Your task to perform on an android device: turn off notifications settings in the gmail app Image 0: 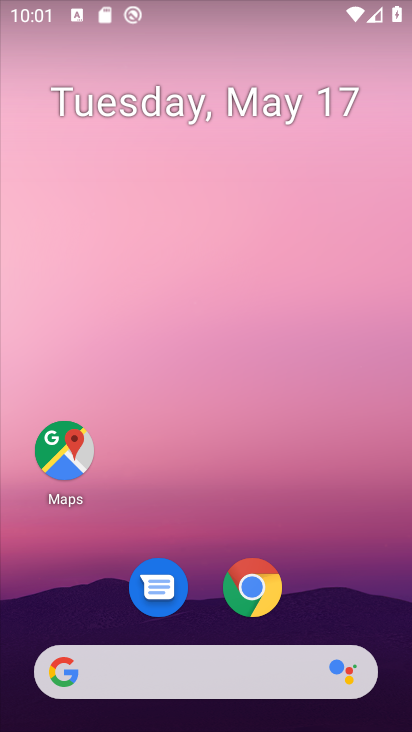
Step 0: drag from (221, 530) to (203, 222)
Your task to perform on an android device: turn off notifications settings in the gmail app Image 1: 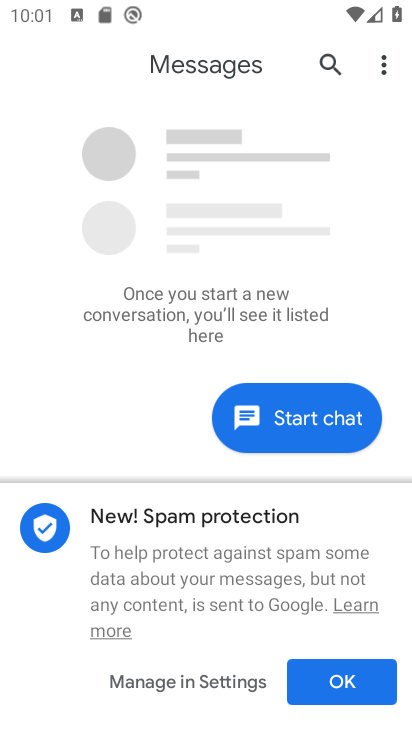
Step 1: press home button
Your task to perform on an android device: turn off notifications settings in the gmail app Image 2: 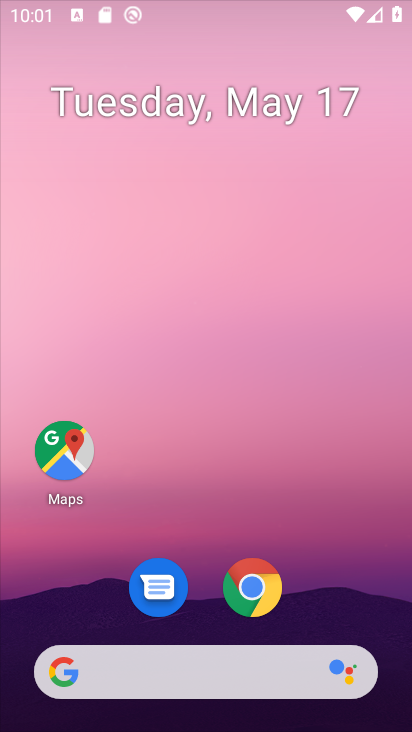
Step 2: drag from (232, 506) to (181, 133)
Your task to perform on an android device: turn off notifications settings in the gmail app Image 3: 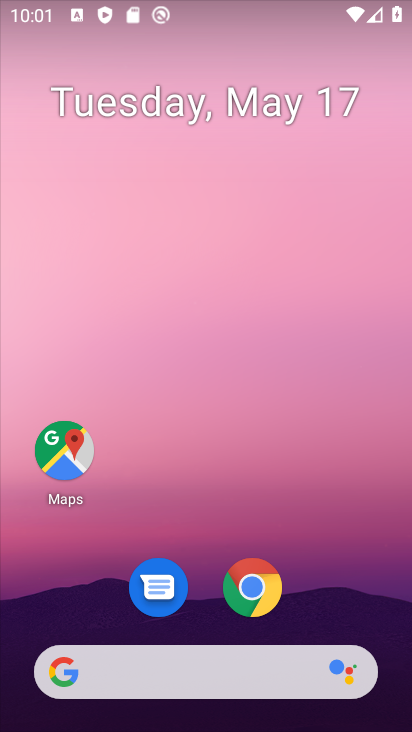
Step 3: drag from (189, 318) to (217, 87)
Your task to perform on an android device: turn off notifications settings in the gmail app Image 4: 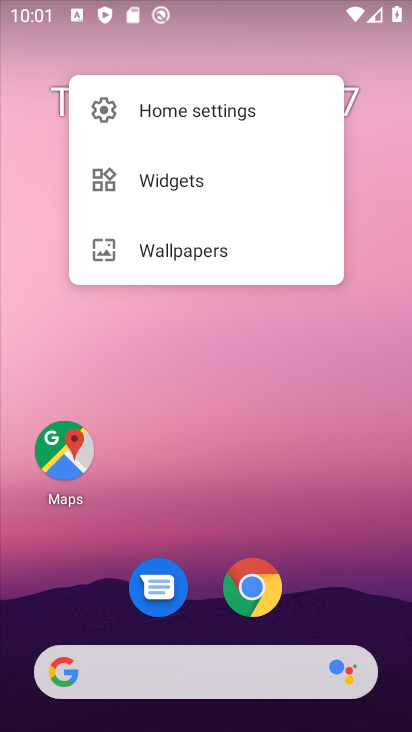
Step 4: drag from (170, 437) to (171, 165)
Your task to perform on an android device: turn off notifications settings in the gmail app Image 5: 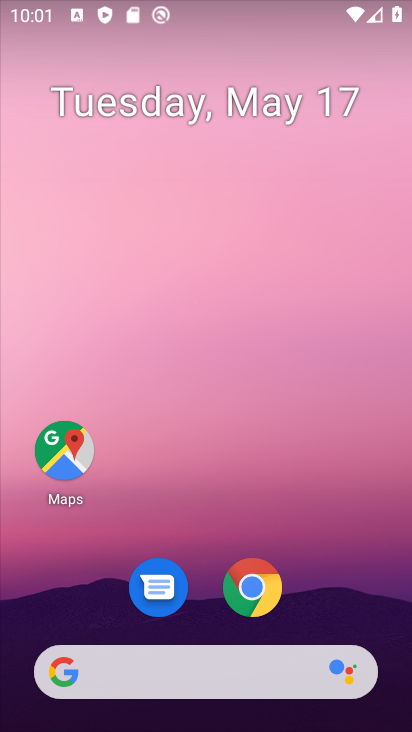
Step 5: click (183, 425)
Your task to perform on an android device: turn off notifications settings in the gmail app Image 6: 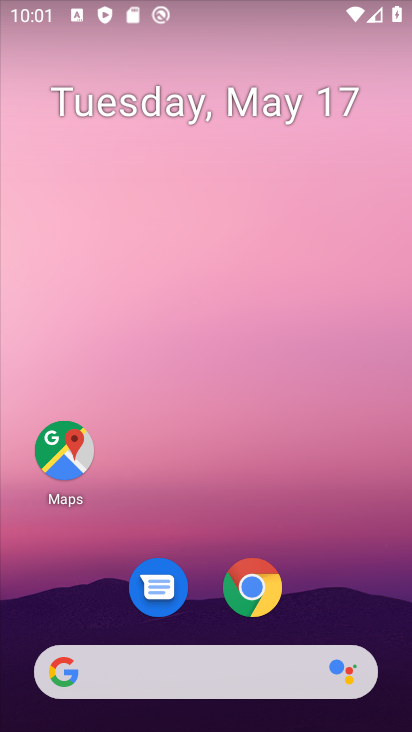
Step 6: drag from (185, 422) to (200, 137)
Your task to perform on an android device: turn off notifications settings in the gmail app Image 7: 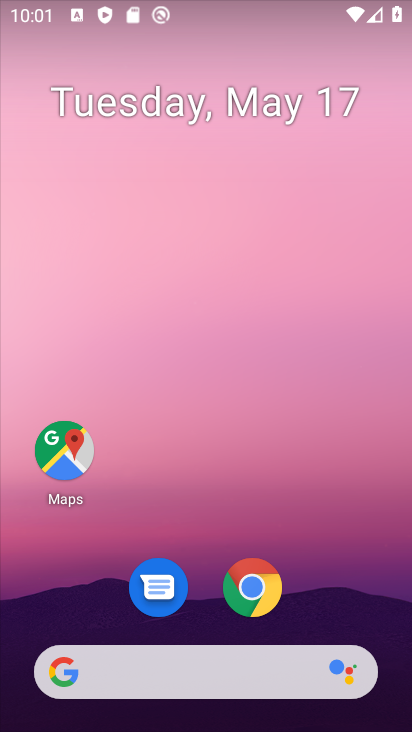
Step 7: drag from (218, 552) to (214, 29)
Your task to perform on an android device: turn off notifications settings in the gmail app Image 8: 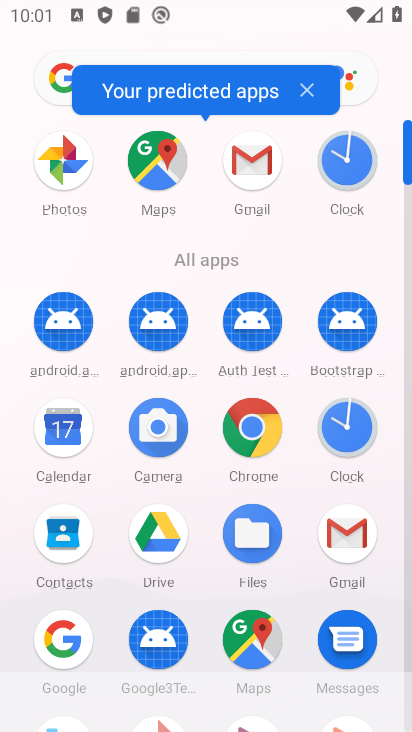
Step 8: click (364, 533)
Your task to perform on an android device: turn off notifications settings in the gmail app Image 9: 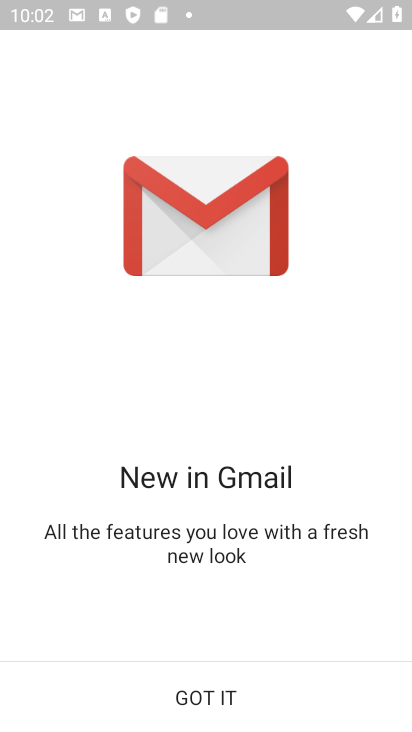
Step 9: click (219, 686)
Your task to perform on an android device: turn off notifications settings in the gmail app Image 10: 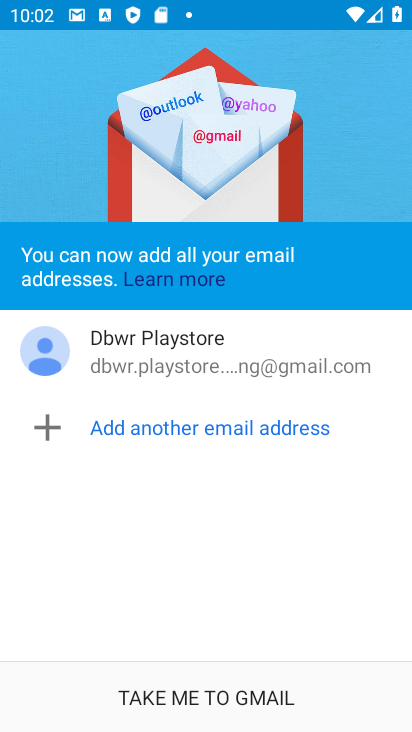
Step 10: click (219, 686)
Your task to perform on an android device: turn off notifications settings in the gmail app Image 11: 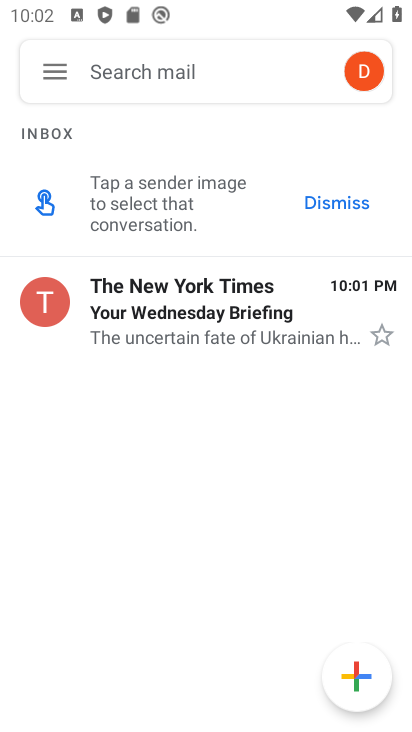
Step 11: click (59, 82)
Your task to perform on an android device: turn off notifications settings in the gmail app Image 12: 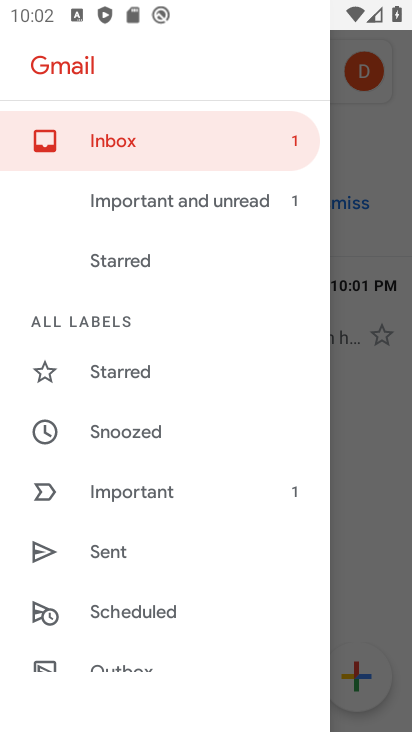
Step 12: click (47, 83)
Your task to perform on an android device: turn off notifications settings in the gmail app Image 13: 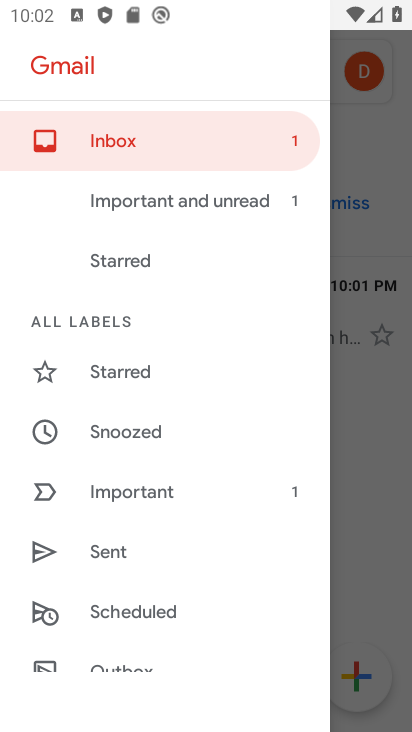
Step 13: drag from (161, 457) to (156, 156)
Your task to perform on an android device: turn off notifications settings in the gmail app Image 14: 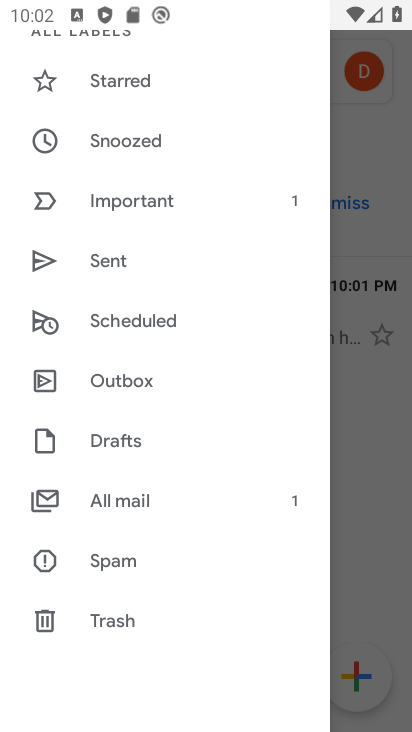
Step 14: drag from (90, 542) to (86, 200)
Your task to perform on an android device: turn off notifications settings in the gmail app Image 15: 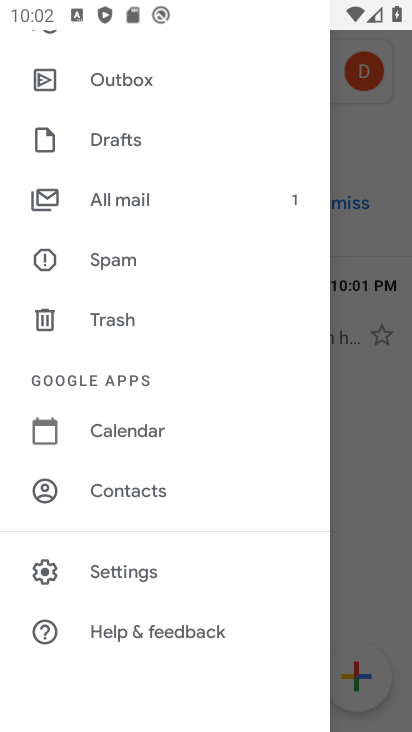
Step 15: click (117, 579)
Your task to perform on an android device: turn off notifications settings in the gmail app Image 16: 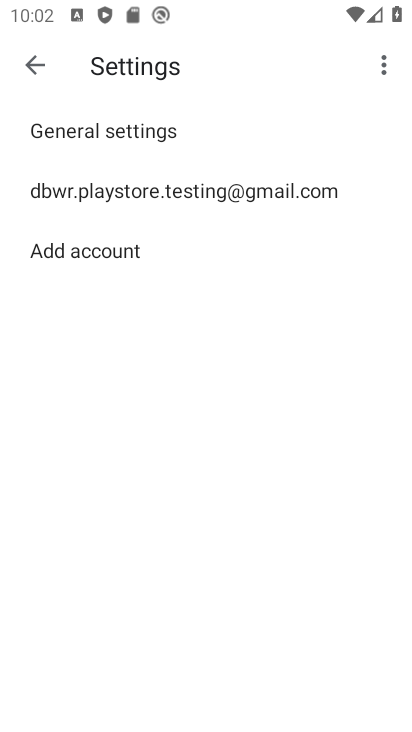
Step 16: click (202, 208)
Your task to perform on an android device: turn off notifications settings in the gmail app Image 17: 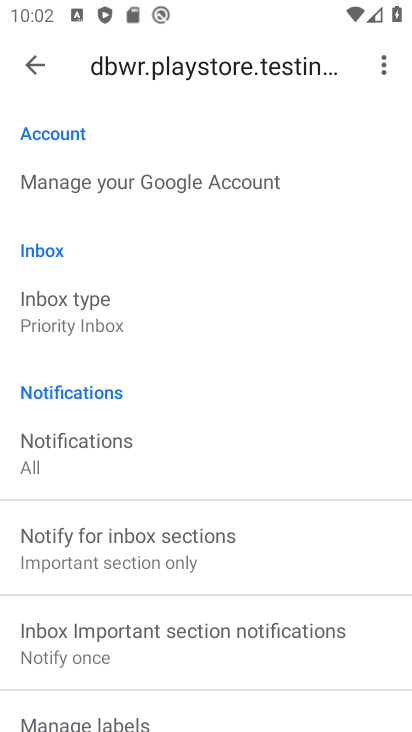
Step 17: click (155, 478)
Your task to perform on an android device: turn off notifications settings in the gmail app Image 18: 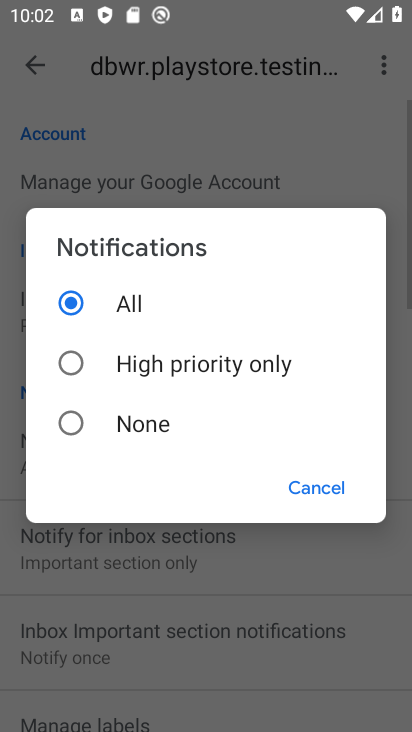
Step 18: click (152, 435)
Your task to perform on an android device: turn off notifications settings in the gmail app Image 19: 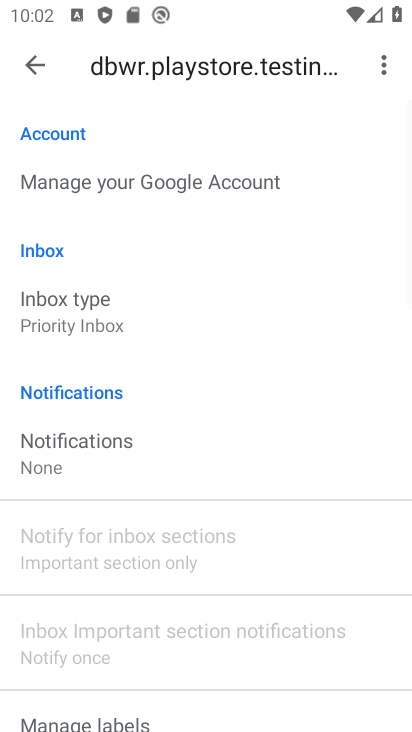
Step 19: task complete